Your task to perform on an android device: toggle notification dots Image 0: 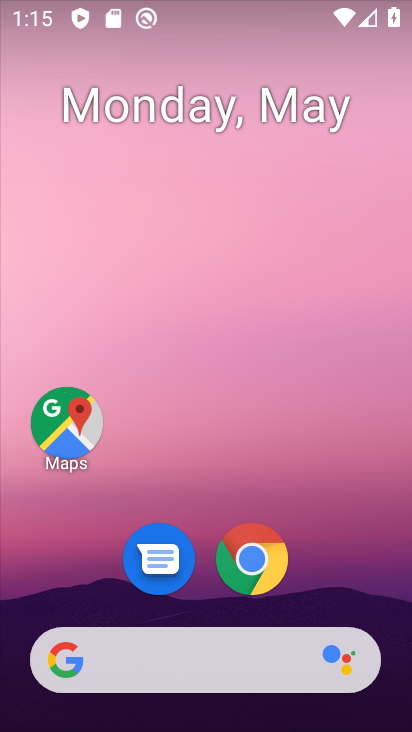
Step 0: drag from (329, 350) to (243, 6)
Your task to perform on an android device: toggle notification dots Image 1: 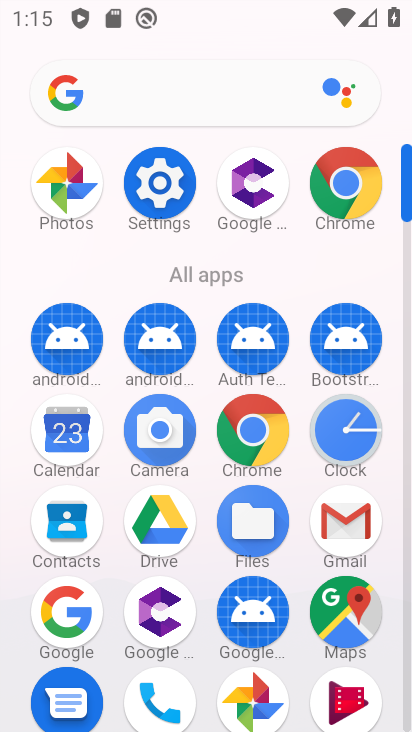
Step 1: click (164, 200)
Your task to perform on an android device: toggle notification dots Image 2: 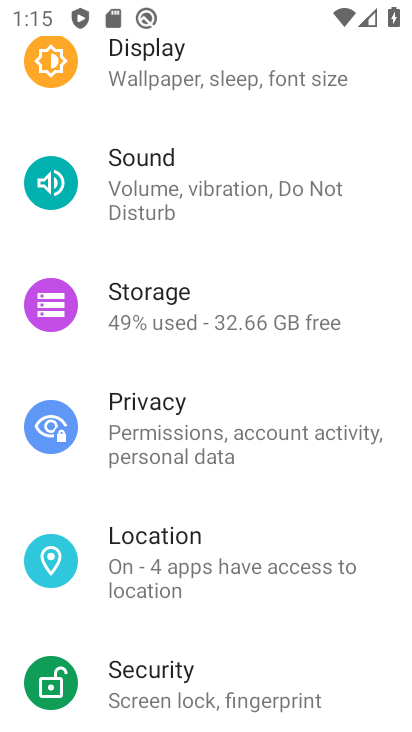
Step 2: drag from (197, 204) to (256, 698)
Your task to perform on an android device: toggle notification dots Image 3: 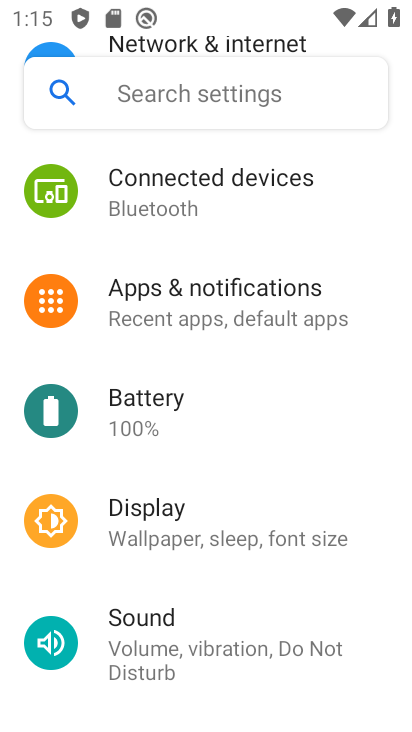
Step 3: drag from (181, 178) to (231, 579)
Your task to perform on an android device: toggle notification dots Image 4: 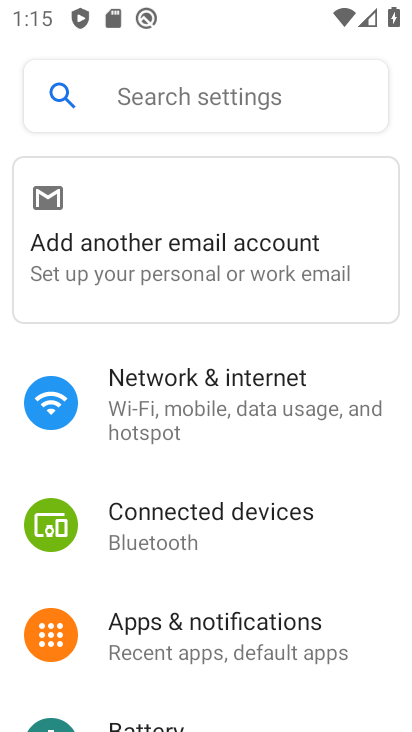
Step 4: click (227, 627)
Your task to perform on an android device: toggle notification dots Image 5: 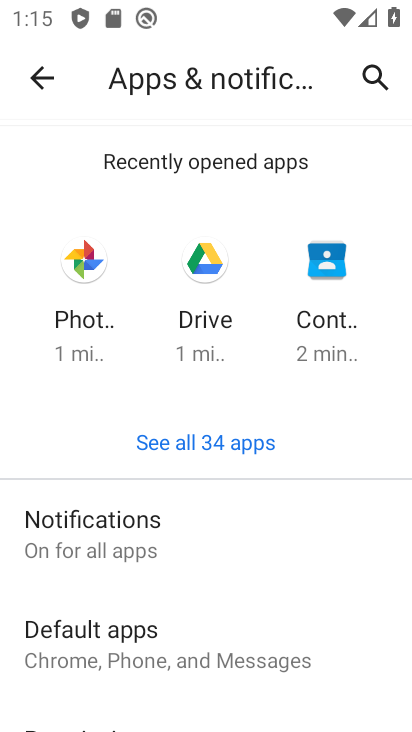
Step 5: click (147, 530)
Your task to perform on an android device: toggle notification dots Image 6: 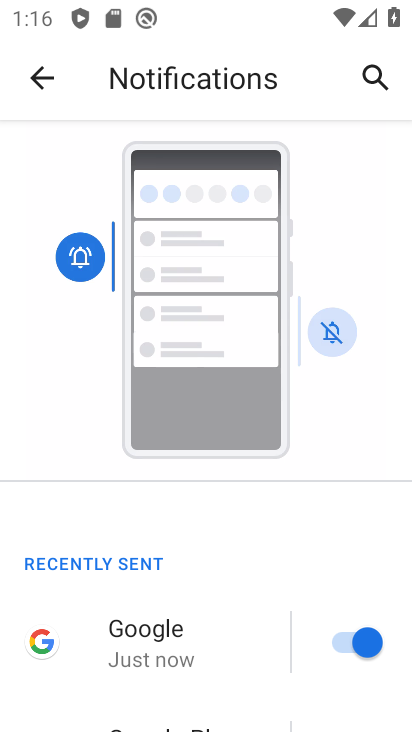
Step 6: drag from (243, 569) to (196, 39)
Your task to perform on an android device: toggle notification dots Image 7: 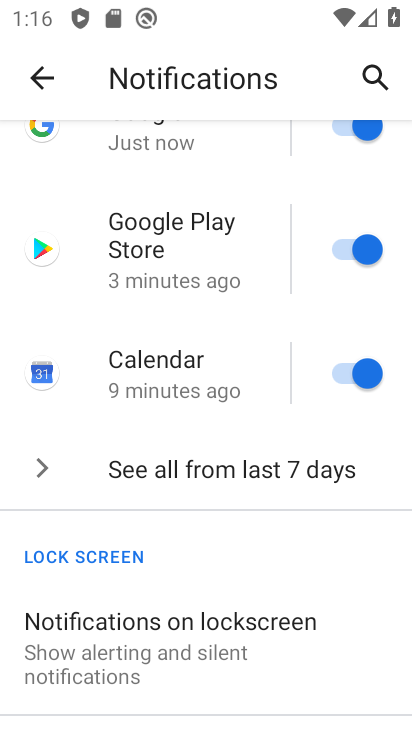
Step 7: drag from (235, 630) to (194, 159)
Your task to perform on an android device: toggle notification dots Image 8: 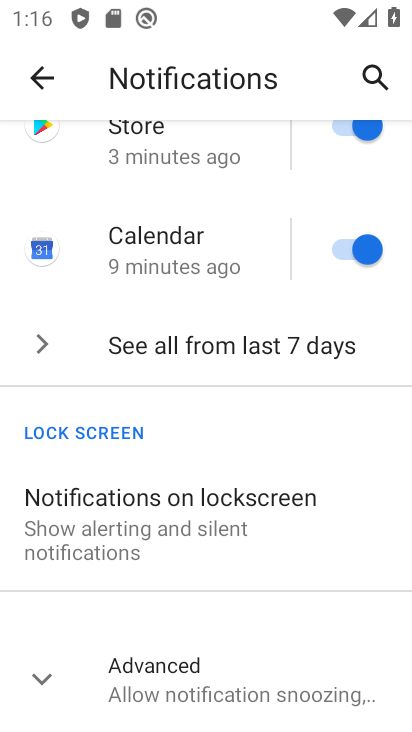
Step 8: click (141, 669)
Your task to perform on an android device: toggle notification dots Image 9: 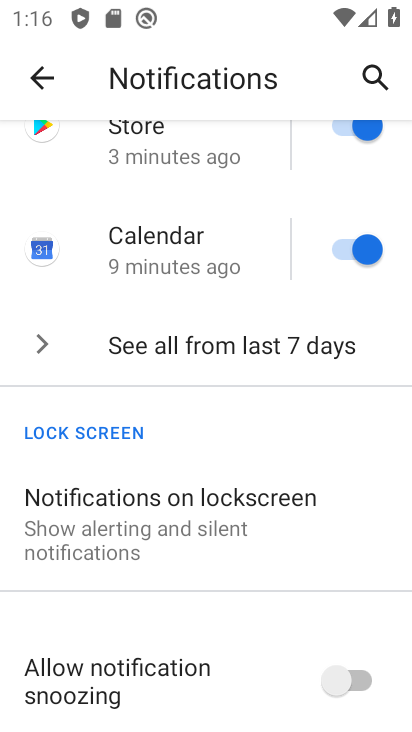
Step 9: drag from (150, 624) to (185, 154)
Your task to perform on an android device: toggle notification dots Image 10: 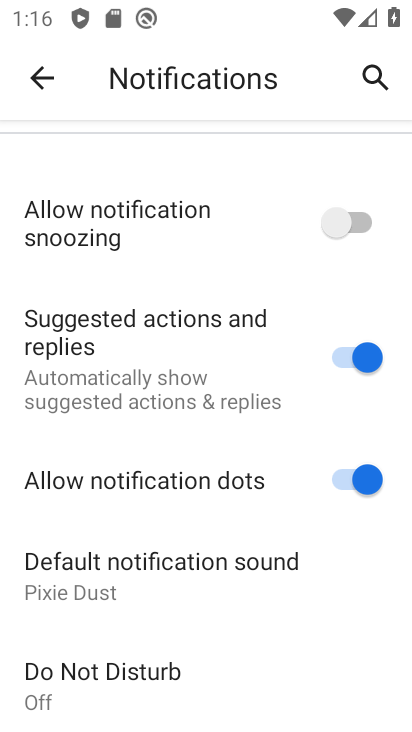
Step 10: click (352, 471)
Your task to perform on an android device: toggle notification dots Image 11: 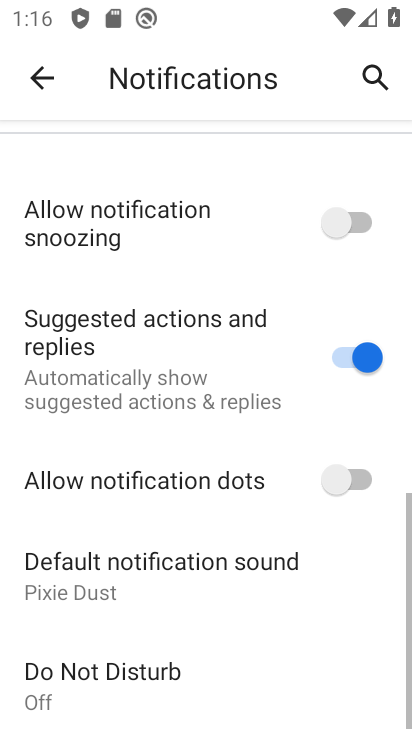
Step 11: task complete